Your task to perform on an android device: Open Maps and search for coffee Image 0: 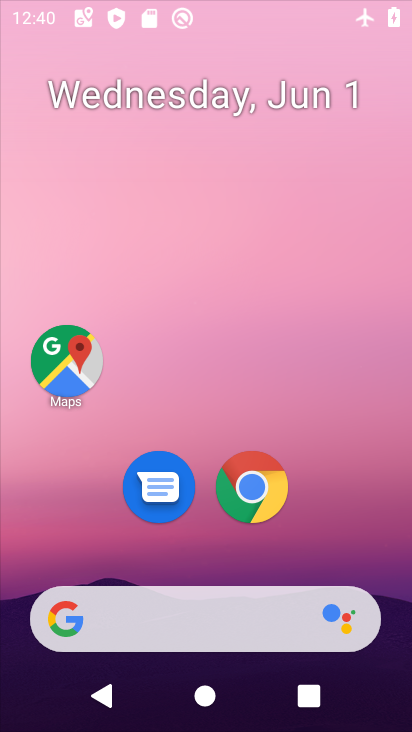
Step 0: click (287, 273)
Your task to perform on an android device: Open Maps and search for coffee Image 1: 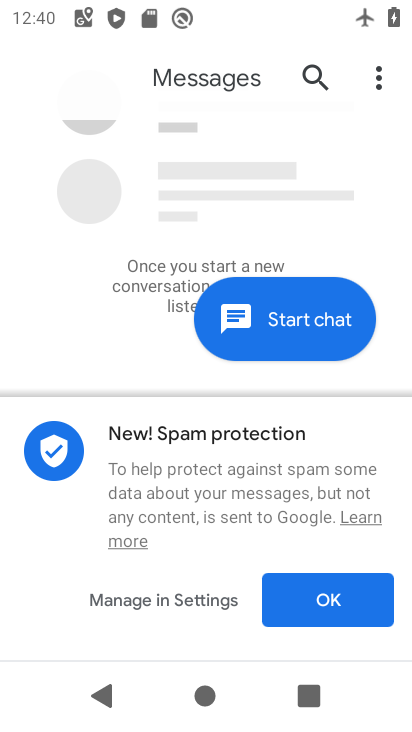
Step 1: press home button
Your task to perform on an android device: Open Maps and search for coffee Image 2: 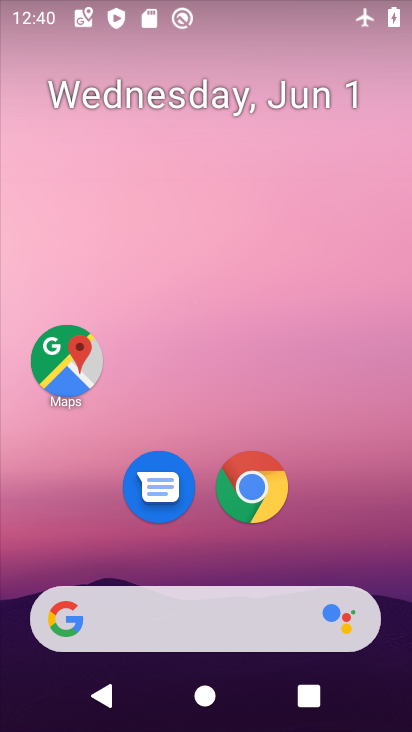
Step 2: drag from (185, 621) to (238, 244)
Your task to perform on an android device: Open Maps and search for coffee Image 3: 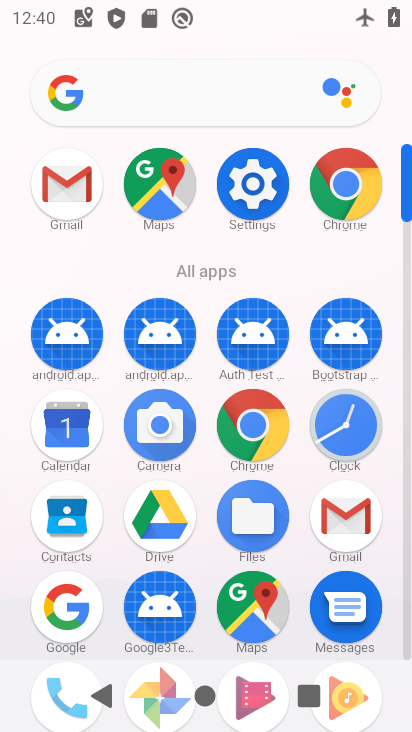
Step 3: click (244, 592)
Your task to perform on an android device: Open Maps and search for coffee Image 4: 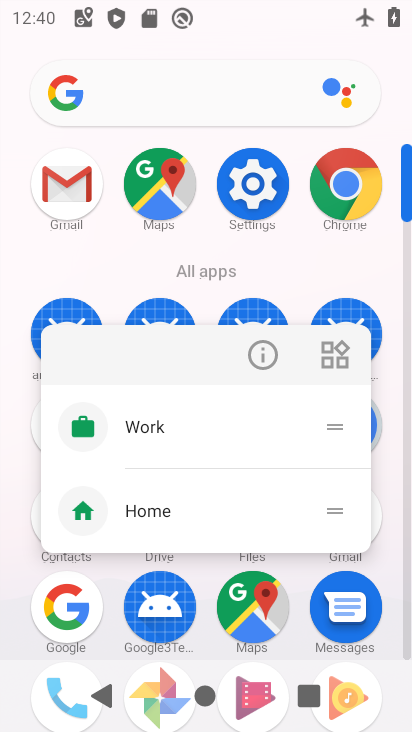
Step 4: click (232, 604)
Your task to perform on an android device: Open Maps and search for coffee Image 5: 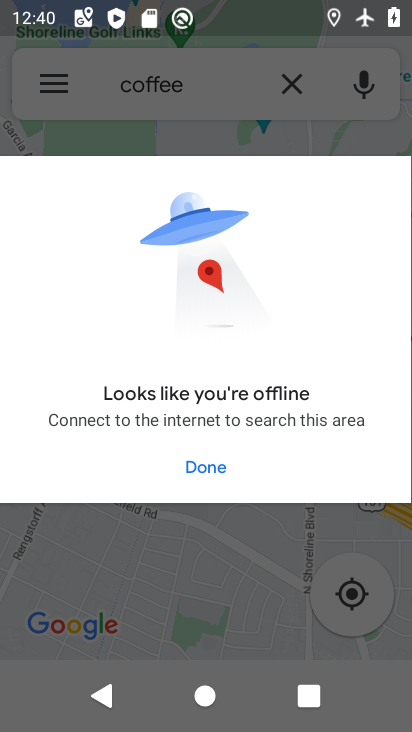
Step 5: click (201, 463)
Your task to perform on an android device: Open Maps and search for coffee Image 6: 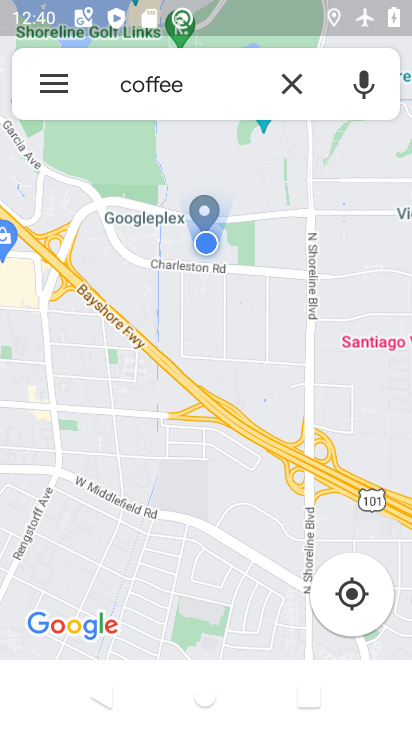
Step 6: task complete